Your task to perform on an android device: turn off data saver in the chrome app Image 0: 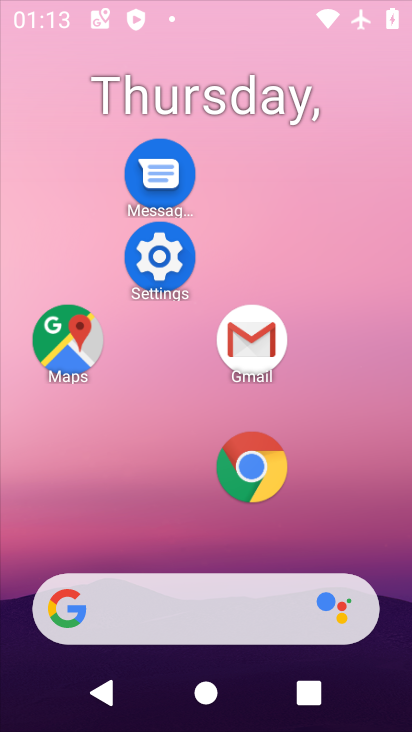
Step 0: drag from (174, 523) to (232, 162)
Your task to perform on an android device: turn off data saver in the chrome app Image 1: 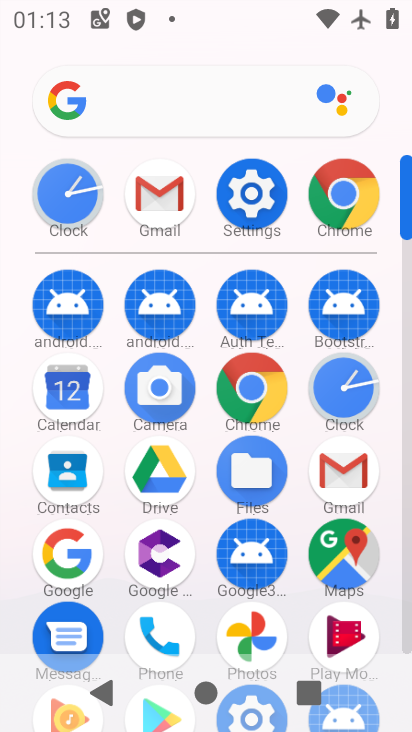
Step 1: click (344, 192)
Your task to perform on an android device: turn off data saver in the chrome app Image 2: 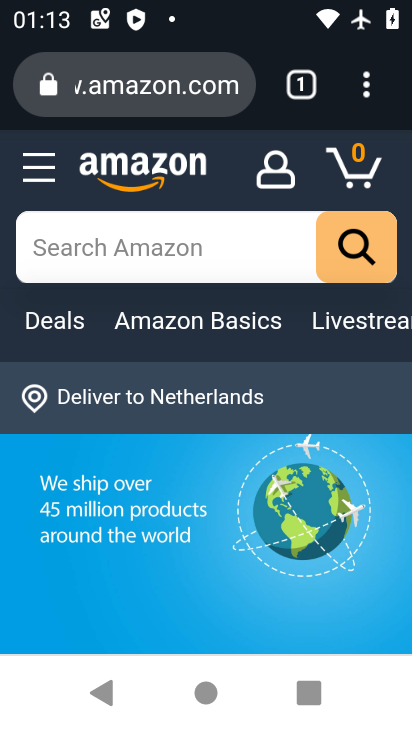
Step 2: drag from (364, 81) to (194, 506)
Your task to perform on an android device: turn off data saver in the chrome app Image 3: 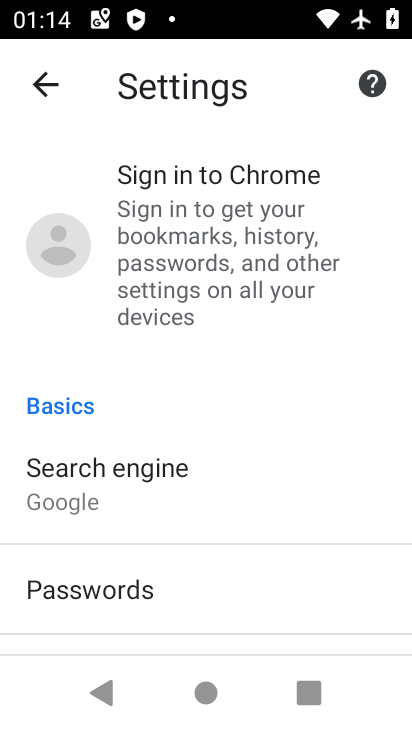
Step 3: drag from (241, 589) to (300, 158)
Your task to perform on an android device: turn off data saver in the chrome app Image 4: 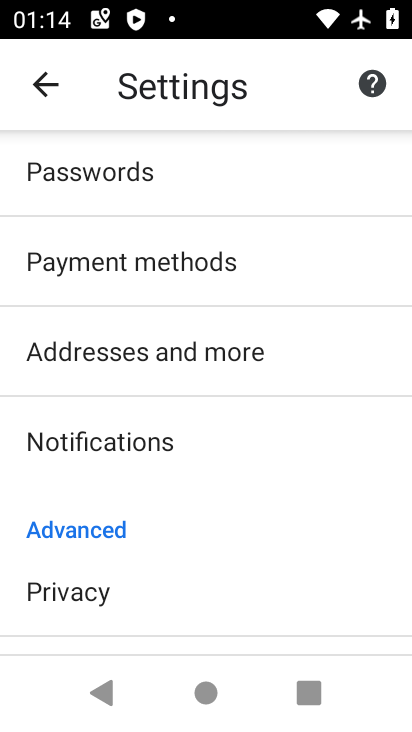
Step 4: drag from (170, 607) to (220, 221)
Your task to perform on an android device: turn off data saver in the chrome app Image 5: 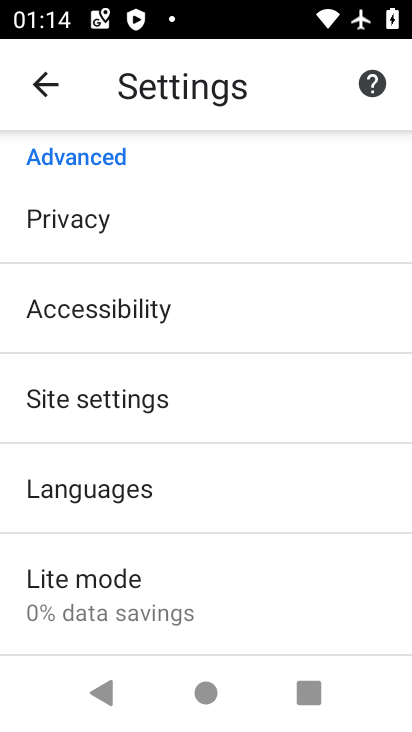
Step 5: drag from (142, 575) to (193, 348)
Your task to perform on an android device: turn off data saver in the chrome app Image 6: 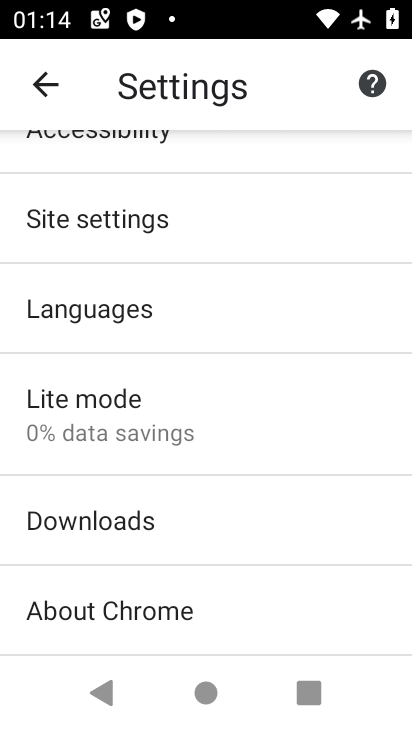
Step 6: click (108, 398)
Your task to perform on an android device: turn off data saver in the chrome app Image 7: 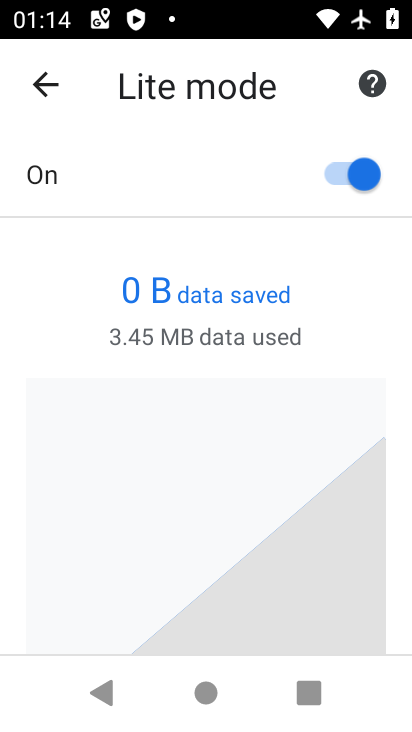
Step 7: click (342, 177)
Your task to perform on an android device: turn off data saver in the chrome app Image 8: 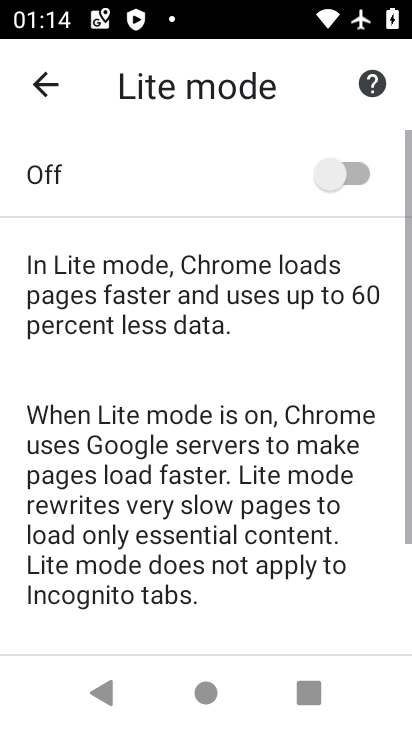
Step 8: task complete